Your task to perform on an android device: Go to location settings Image 0: 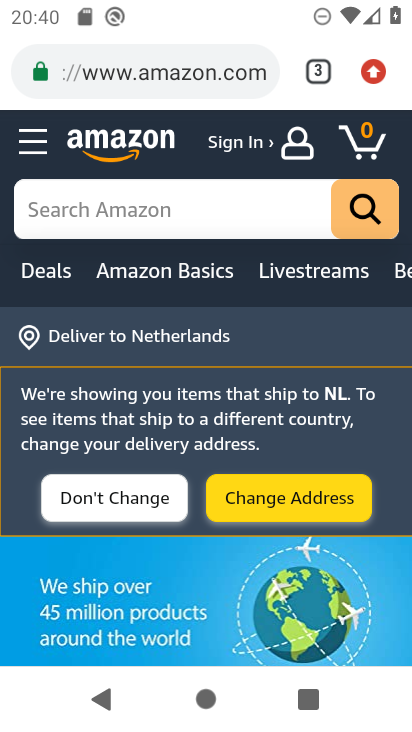
Step 0: press home button
Your task to perform on an android device: Go to location settings Image 1: 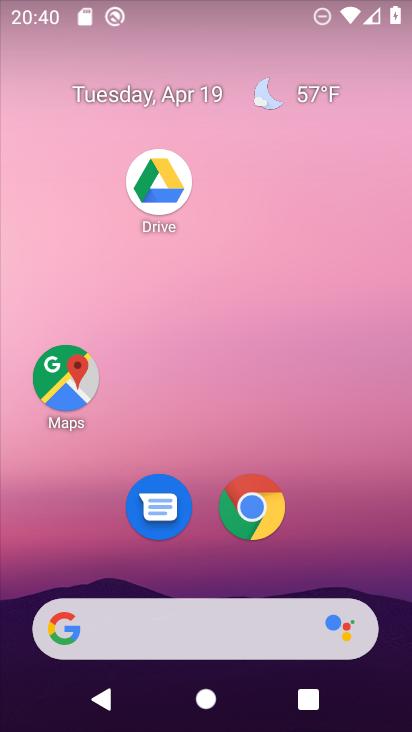
Step 1: drag from (335, 485) to (348, 123)
Your task to perform on an android device: Go to location settings Image 2: 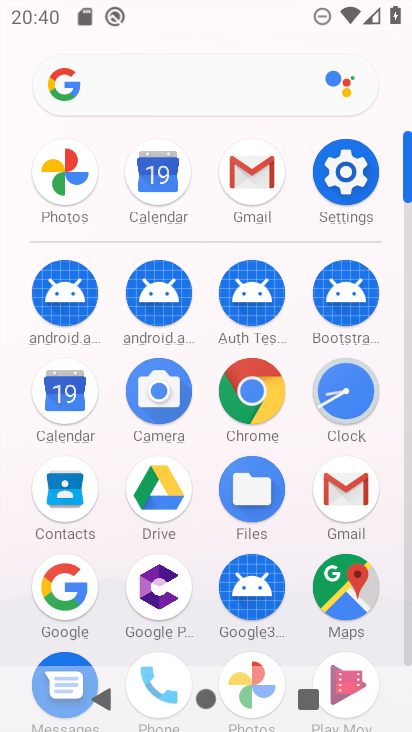
Step 2: click (352, 170)
Your task to perform on an android device: Go to location settings Image 3: 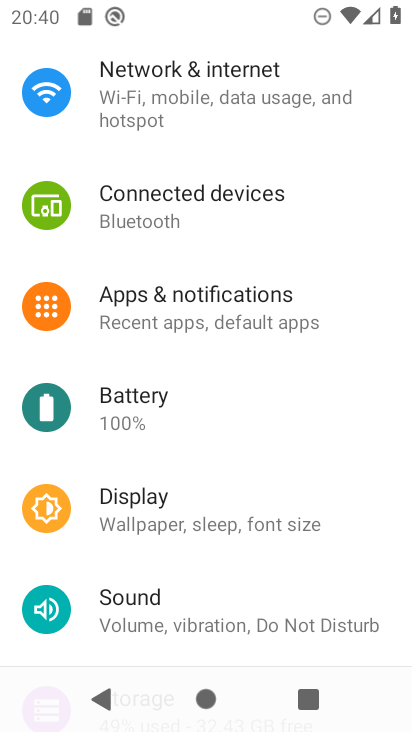
Step 3: drag from (248, 446) to (241, 123)
Your task to perform on an android device: Go to location settings Image 4: 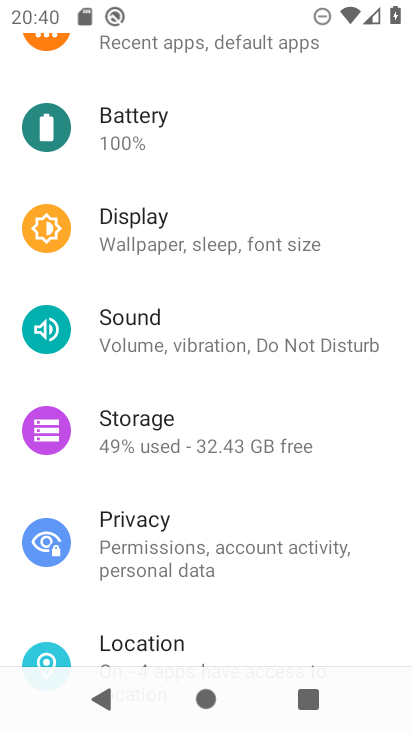
Step 4: drag from (213, 479) to (218, 143)
Your task to perform on an android device: Go to location settings Image 5: 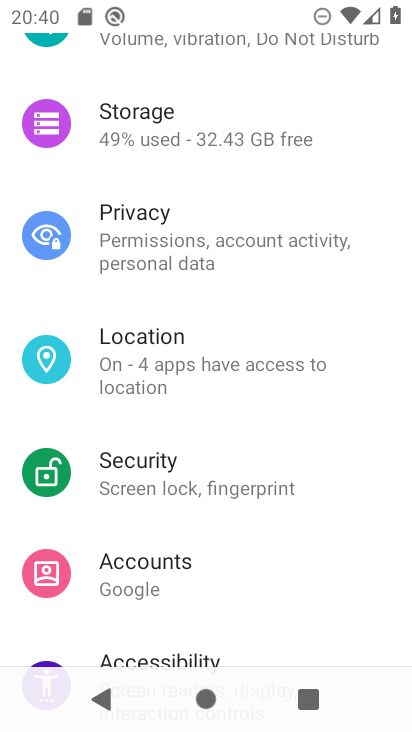
Step 5: click (212, 354)
Your task to perform on an android device: Go to location settings Image 6: 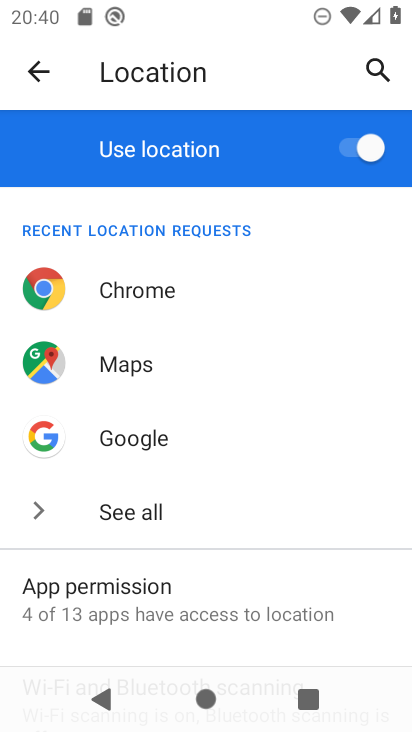
Step 6: task complete